Your task to perform on an android device: search for starred emails in the gmail app Image 0: 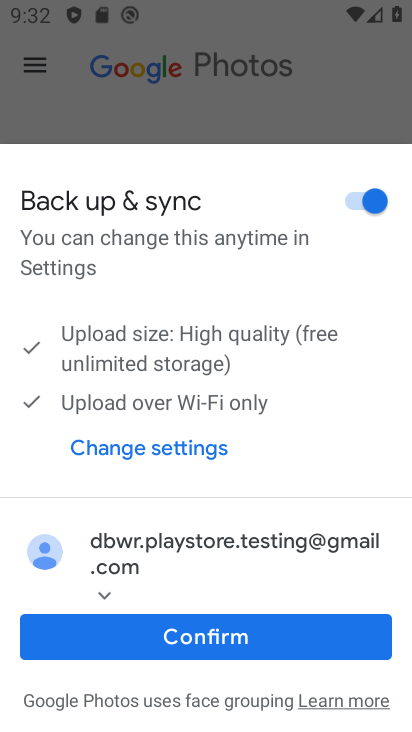
Step 0: press home button
Your task to perform on an android device: search for starred emails in the gmail app Image 1: 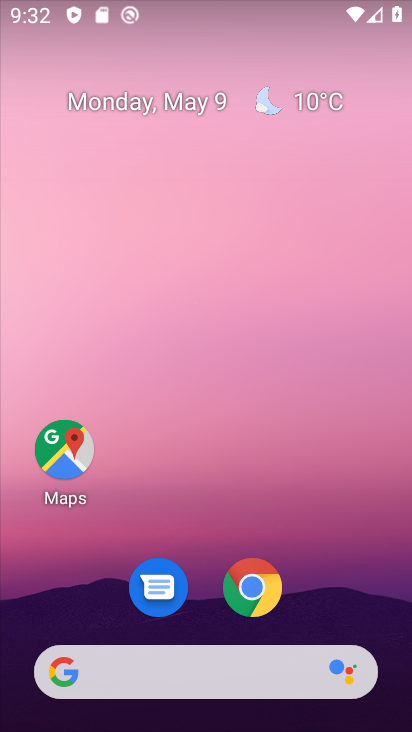
Step 1: drag from (335, 553) to (298, 160)
Your task to perform on an android device: search for starred emails in the gmail app Image 2: 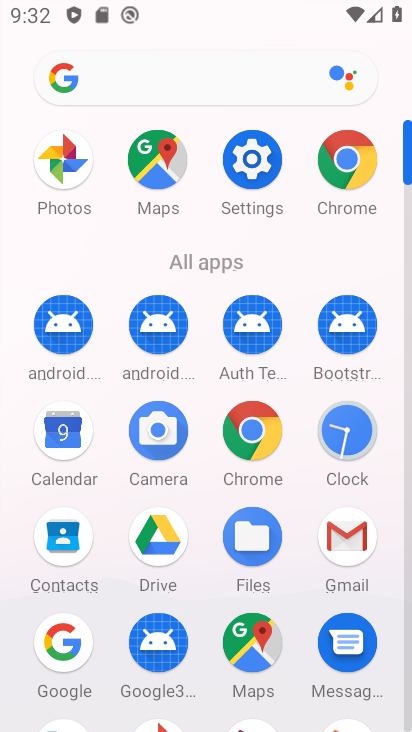
Step 2: click (339, 527)
Your task to perform on an android device: search for starred emails in the gmail app Image 3: 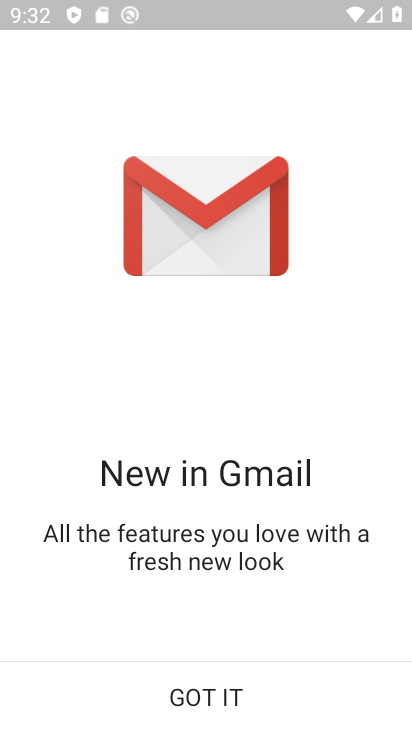
Step 3: click (252, 673)
Your task to perform on an android device: search for starred emails in the gmail app Image 4: 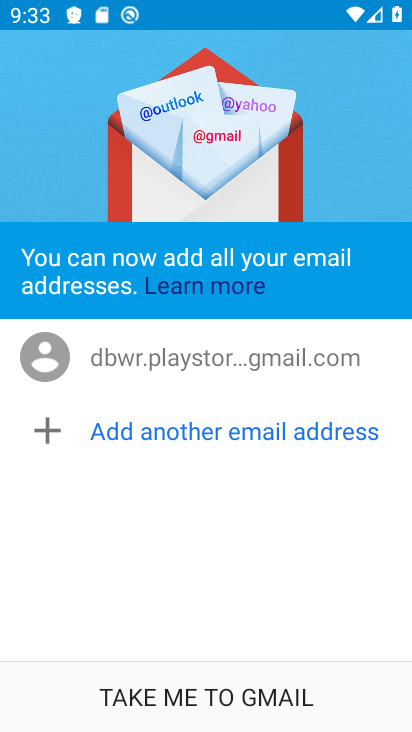
Step 4: click (160, 670)
Your task to perform on an android device: search for starred emails in the gmail app Image 5: 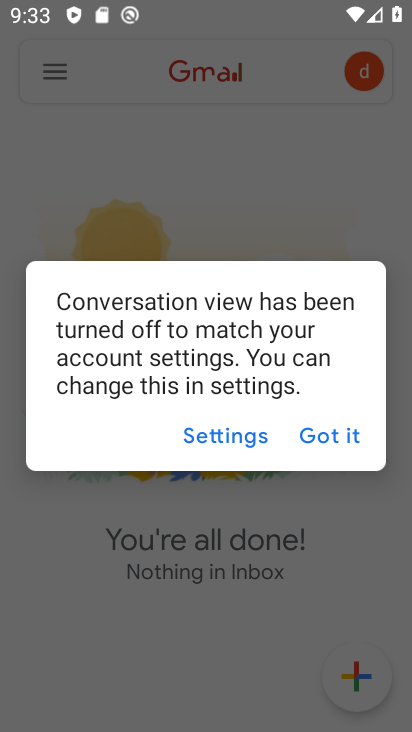
Step 5: click (317, 430)
Your task to perform on an android device: search for starred emails in the gmail app Image 6: 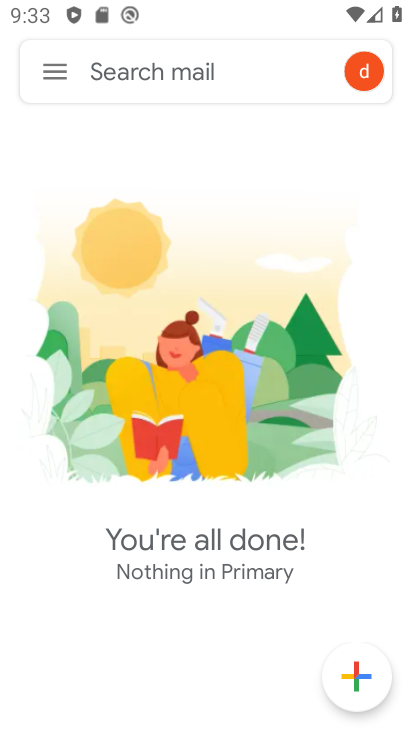
Step 6: click (50, 71)
Your task to perform on an android device: search for starred emails in the gmail app Image 7: 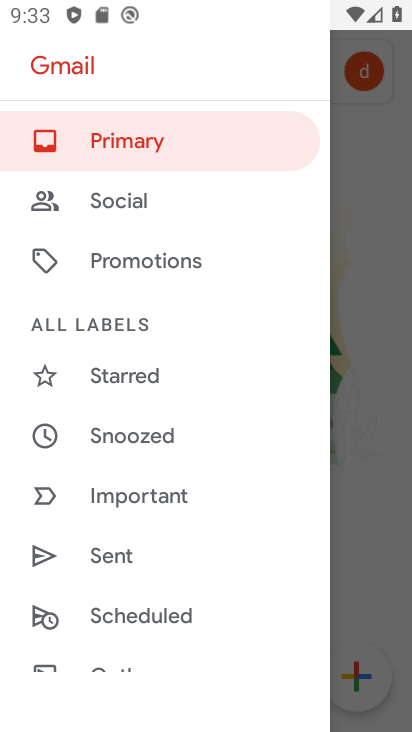
Step 7: click (114, 363)
Your task to perform on an android device: search for starred emails in the gmail app Image 8: 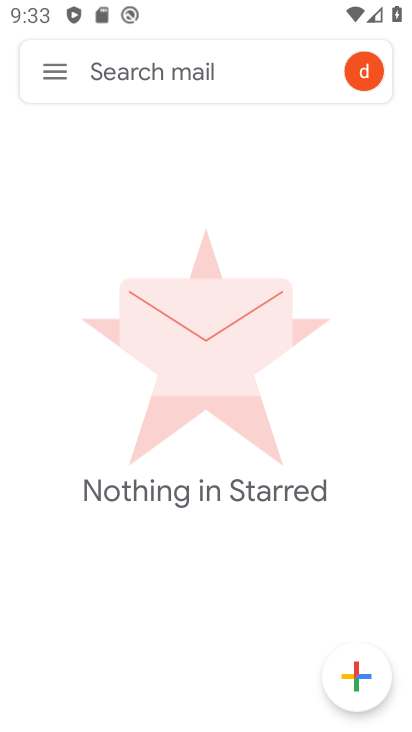
Step 8: task complete